Your task to perform on an android device: open app "Facebook Messenger" (install if not already installed) Image 0: 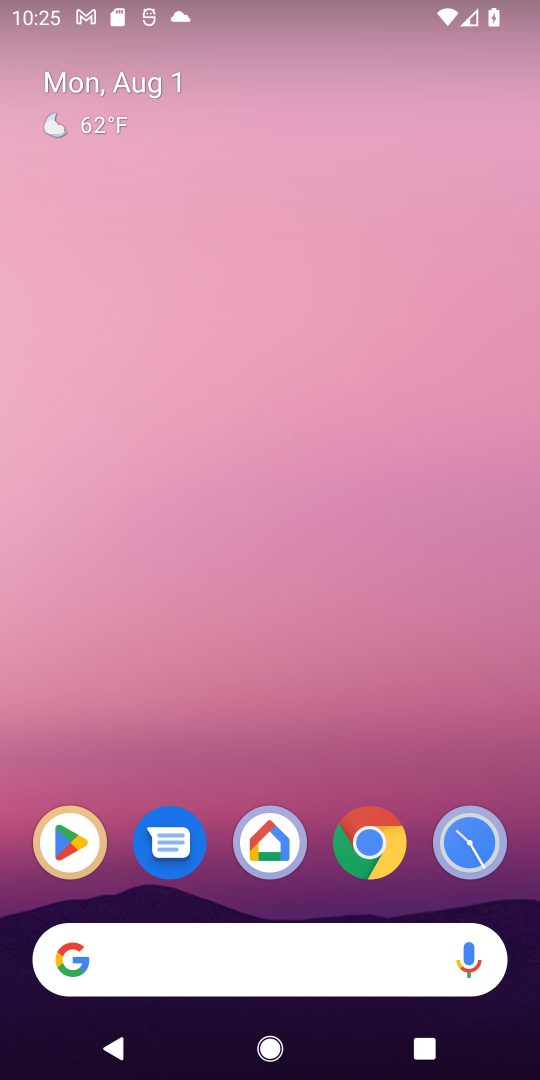
Step 0: click (93, 856)
Your task to perform on an android device: open app "Facebook Messenger" (install if not already installed) Image 1: 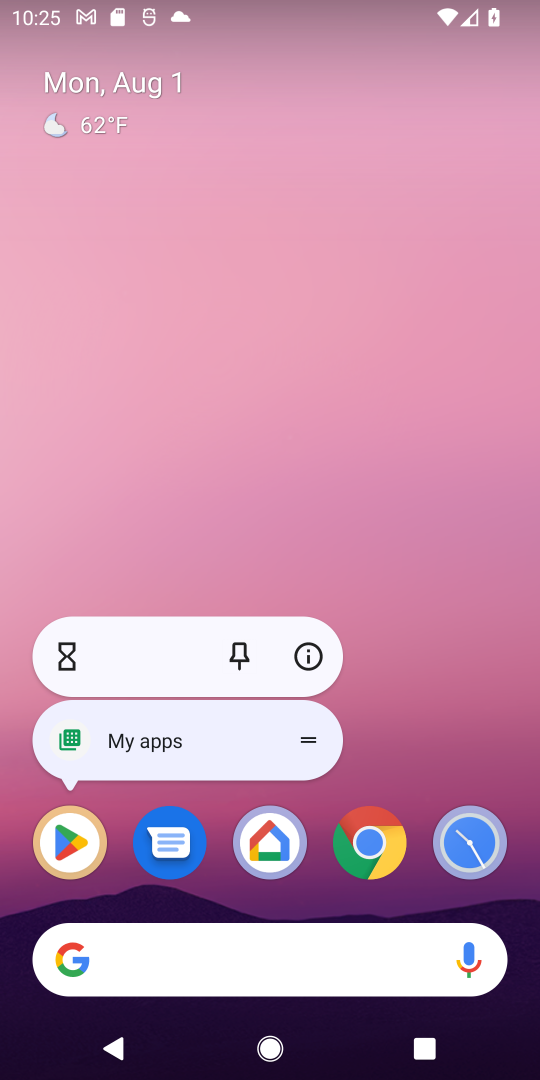
Step 1: click (86, 839)
Your task to perform on an android device: open app "Facebook Messenger" (install if not already installed) Image 2: 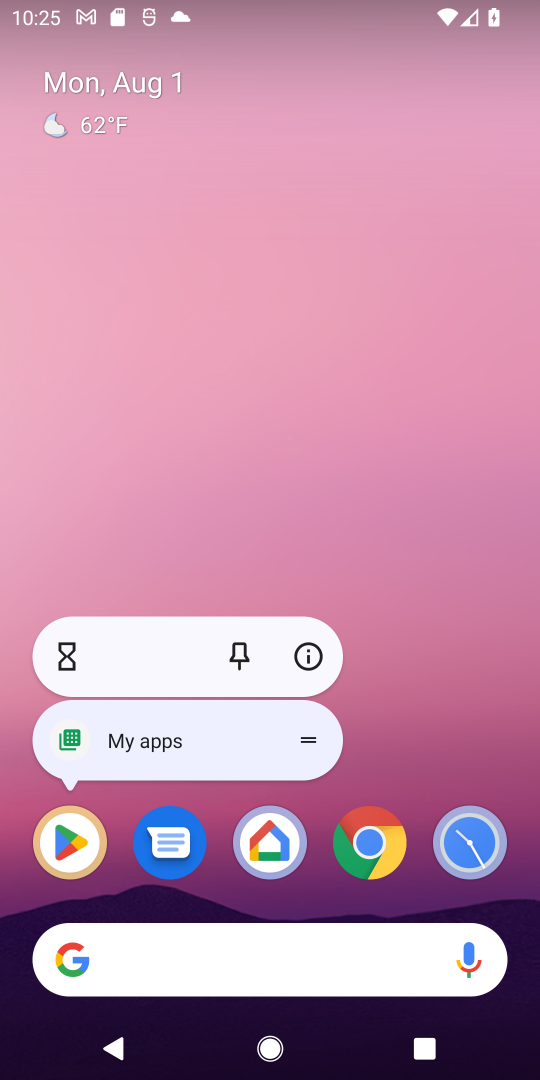
Step 2: click (65, 849)
Your task to perform on an android device: open app "Facebook Messenger" (install if not already installed) Image 3: 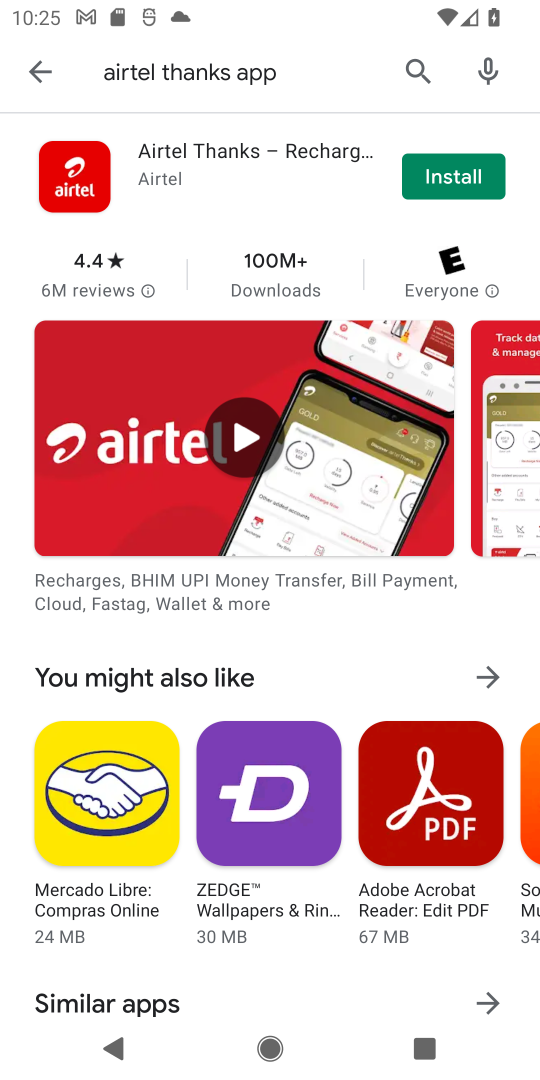
Step 3: click (402, 68)
Your task to perform on an android device: open app "Facebook Messenger" (install if not already installed) Image 4: 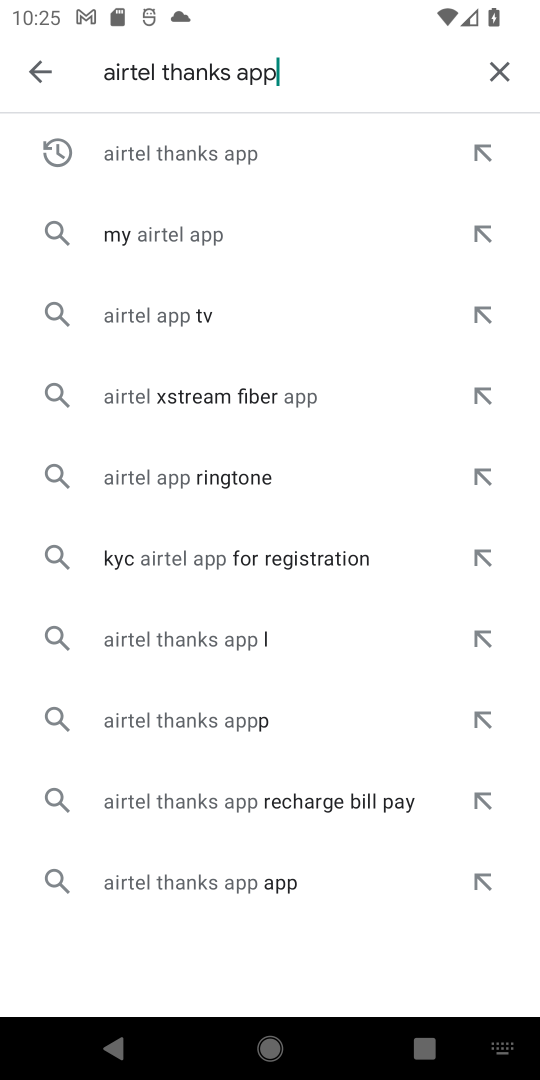
Step 4: click (486, 74)
Your task to perform on an android device: open app "Facebook Messenger" (install if not already installed) Image 5: 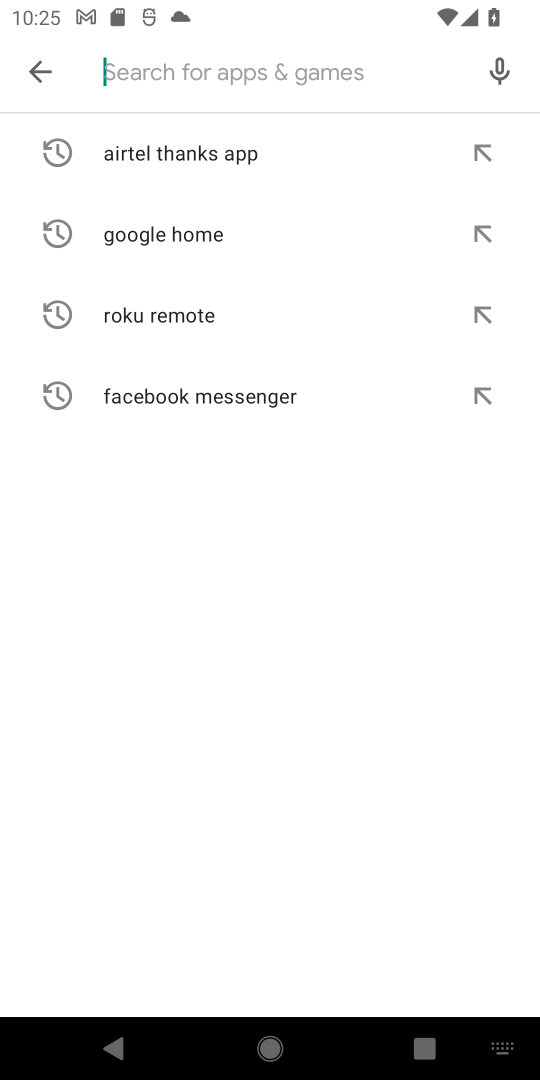
Step 5: click (143, 77)
Your task to perform on an android device: open app "Facebook Messenger" (install if not already installed) Image 6: 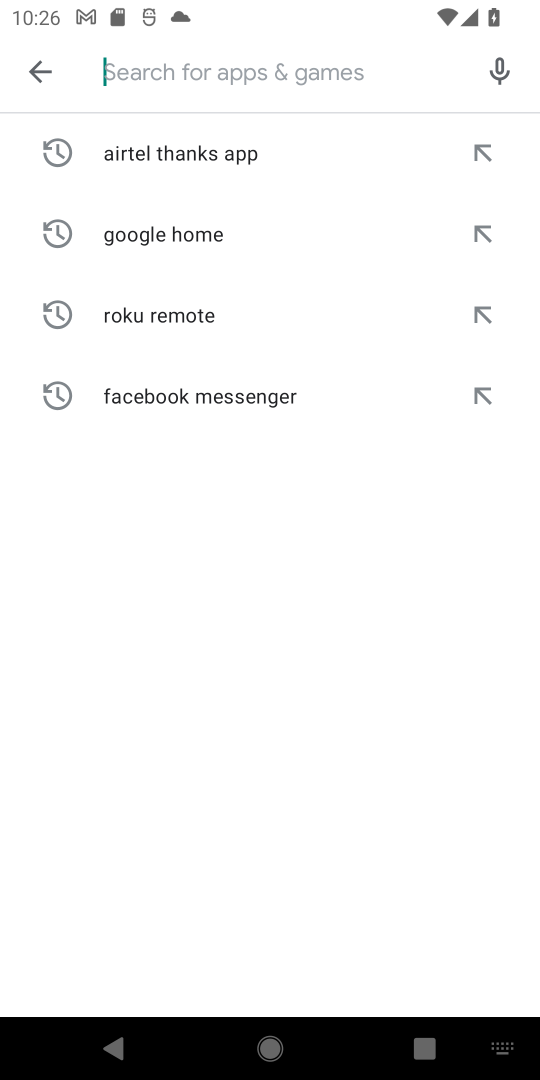
Step 6: type "Facebook Messenger"
Your task to perform on an android device: open app "Facebook Messenger" (install if not already installed) Image 7: 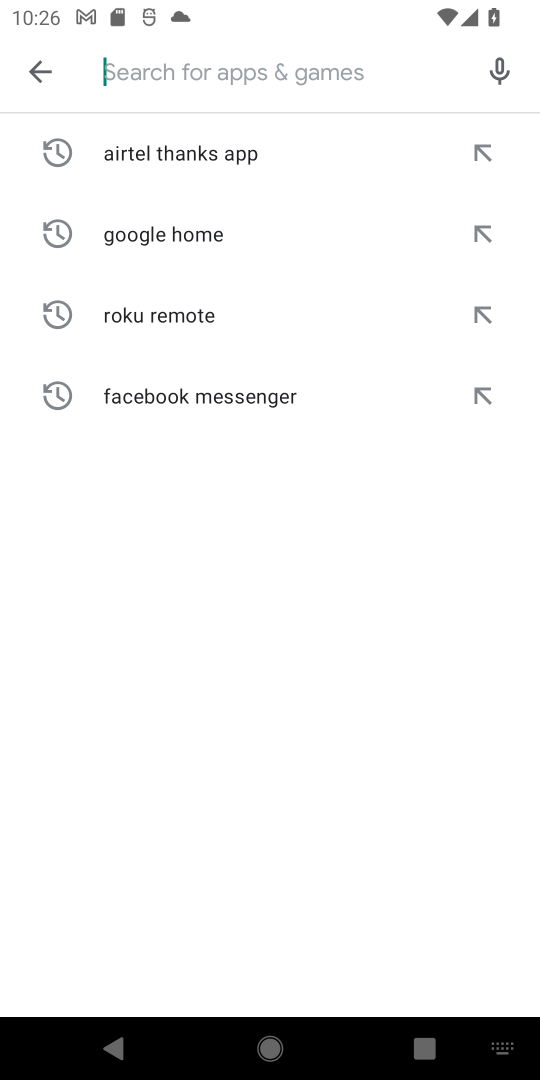
Step 7: click (239, 514)
Your task to perform on an android device: open app "Facebook Messenger" (install if not already installed) Image 8: 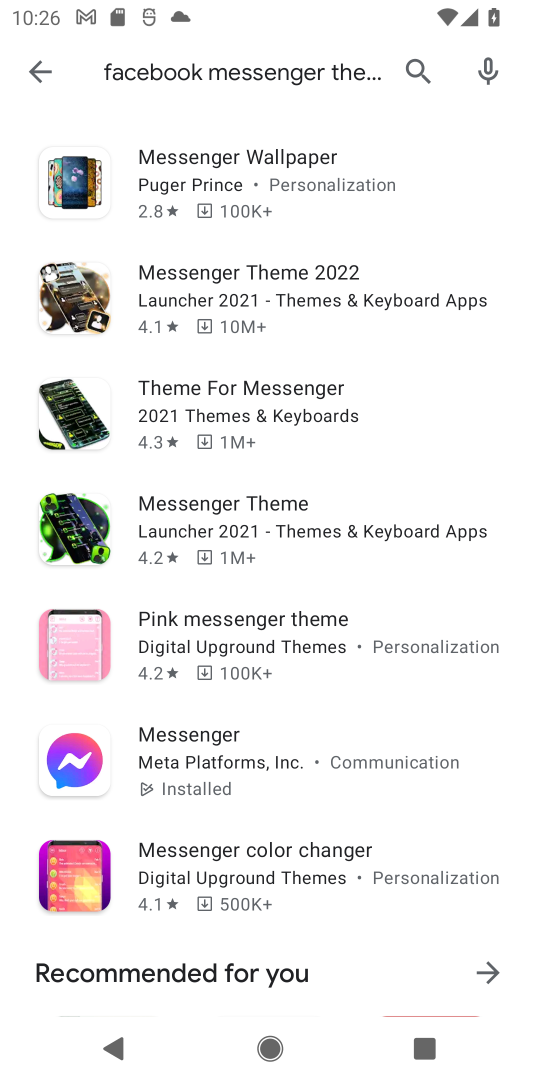
Step 8: click (151, 753)
Your task to perform on an android device: open app "Facebook Messenger" (install if not already installed) Image 9: 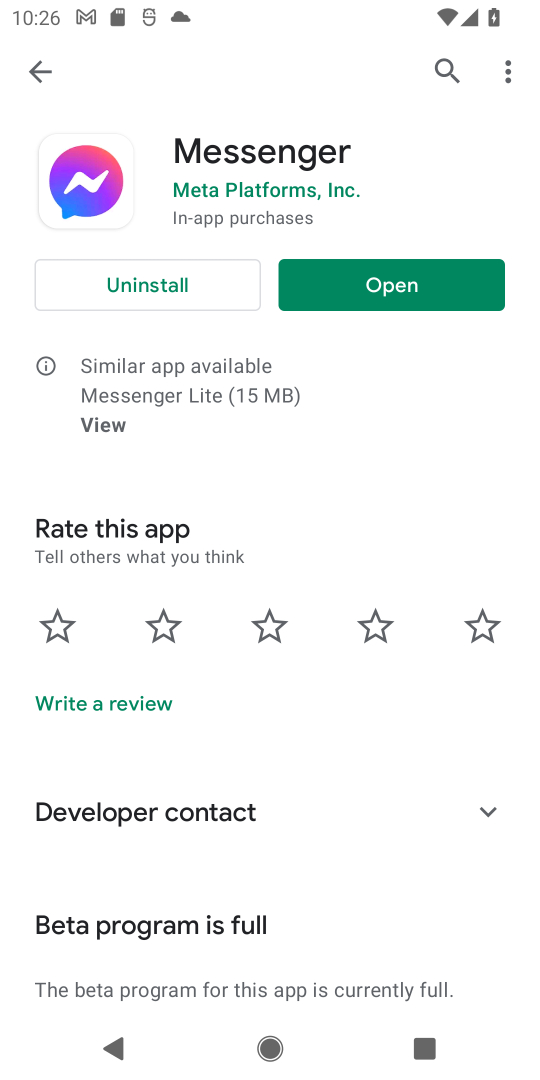
Step 9: click (369, 295)
Your task to perform on an android device: open app "Facebook Messenger" (install if not already installed) Image 10: 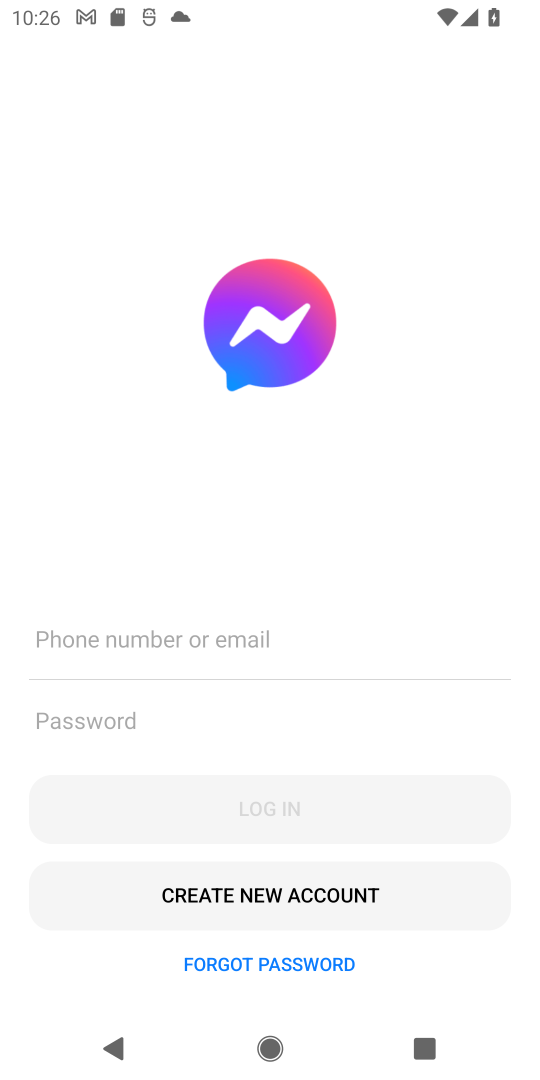
Step 10: task complete